Your task to perform on an android device: What's the weather going to be tomorrow? Image 0: 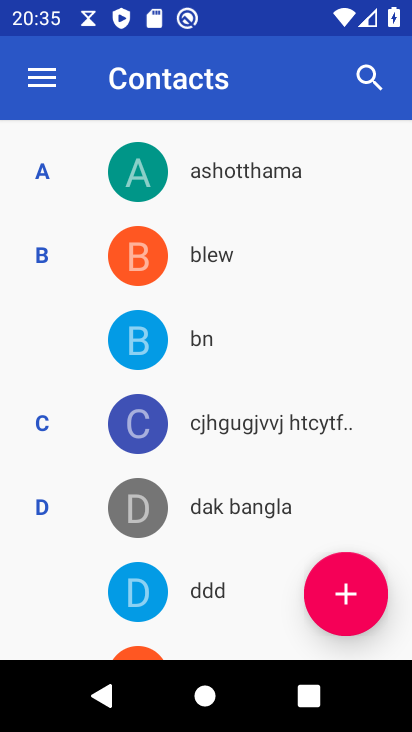
Step 0: press home button
Your task to perform on an android device: What's the weather going to be tomorrow? Image 1: 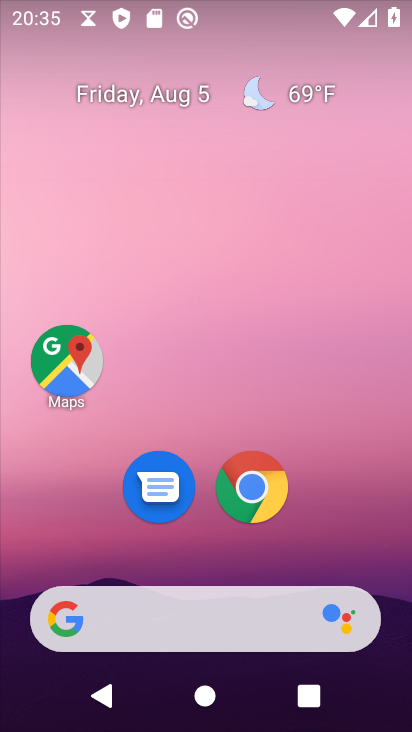
Step 1: click (136, 609)
Your task to perform on an android device: What's the weather going to be tomorrow? Image 2: 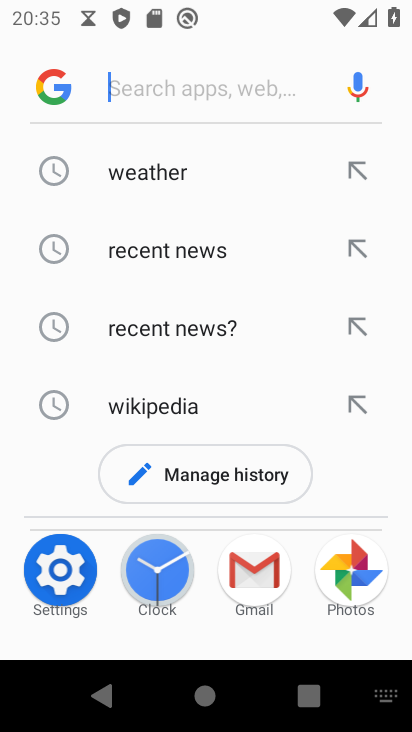
Step 2: click (177, 178)
Your task to perform on an android device: What's the weather going to be tomorrow? Image 3: 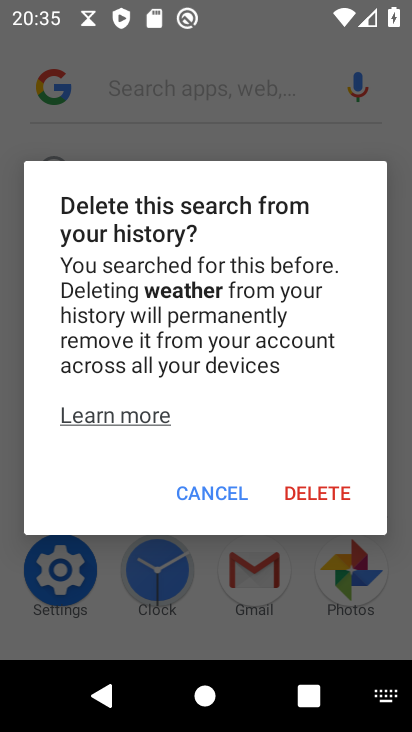
Step 3: click (196, 494)
Your task to perform on an android device: What's the weather going to be tomorrow? Image 4: 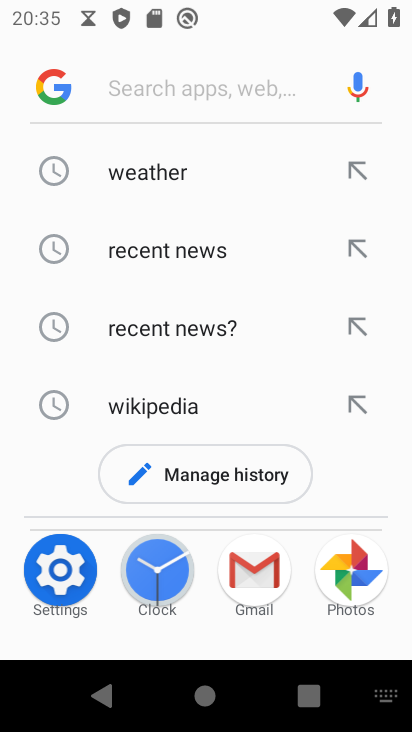
Step 4: click (138, 170)
Your task to perform on an android device: What's the weather going to be tomorrow? Image 5: 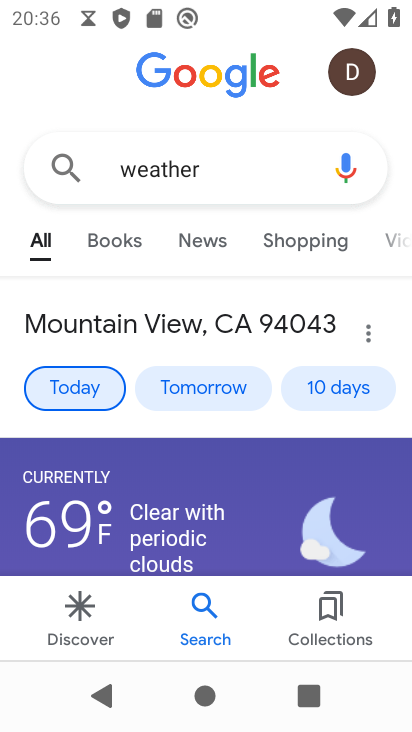
Step 5: drag from (246, 586) to (292, 341)
Your task to perform on an android device: What's the weather going to be tomorrow? Image 6: 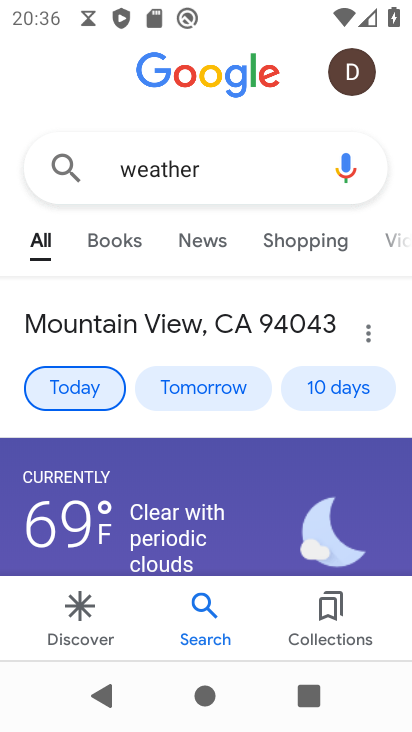
Step 6: click (219, 385)
Your task to perform on an android device: What's the weather going to be tomorrow? Image 7: 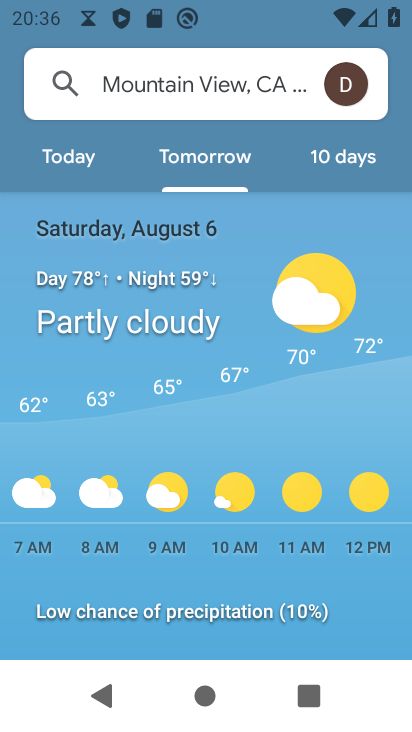
Step 7: task complete